Your task to perform on an android device: Check the weather Image 0: 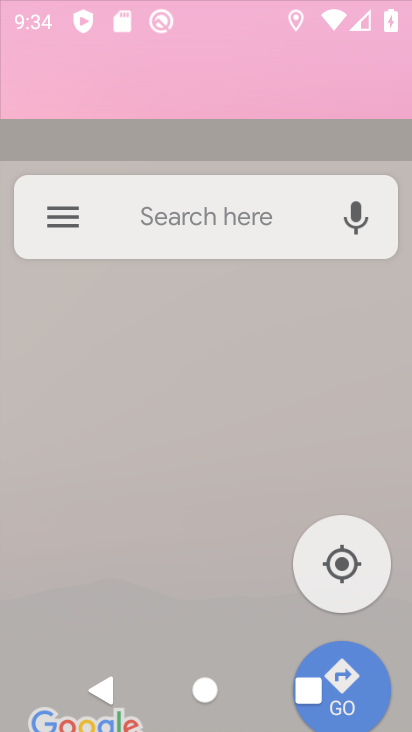
Step 0: click (225, 441)
Your task to perform on an android device: Check the weather Image 1: 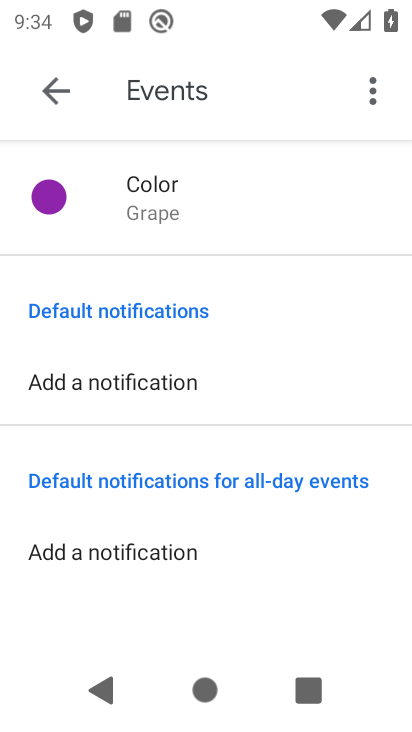
Step 1: press home button
Your task to perform on an android device: Check the weather Image 2: 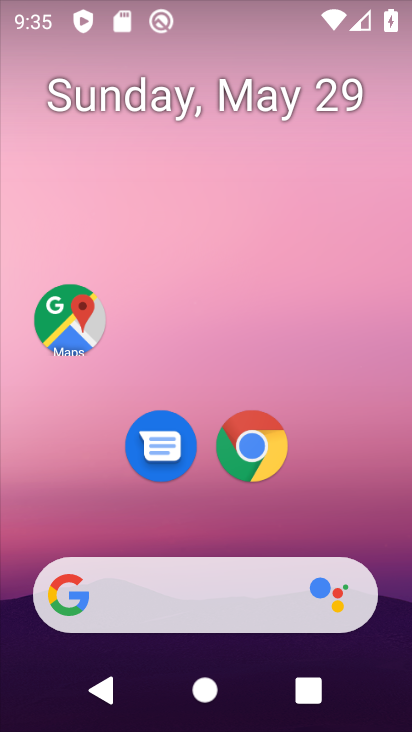
Step 2: drag from (240, 7) to (254, 439)
Your task to perform on an android device: Check the weather Image 3: 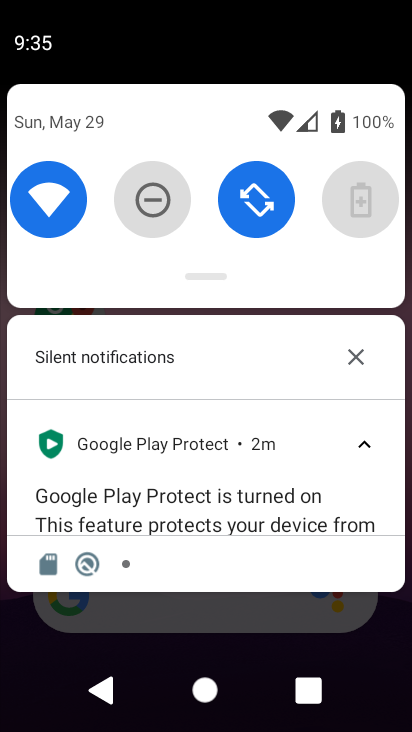
Step 3: drag from (257, 234) to (276, 628)
Your task to perform on an android device: Check the weather Image 4: 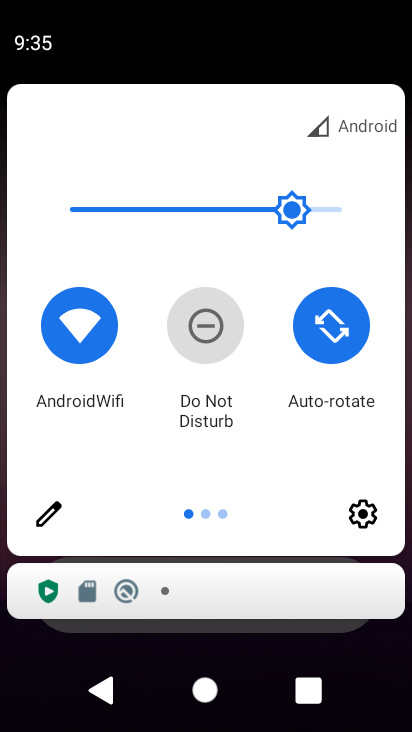
Step 4: press home button
Your task to perform on an android device: Check the weather Image 5: 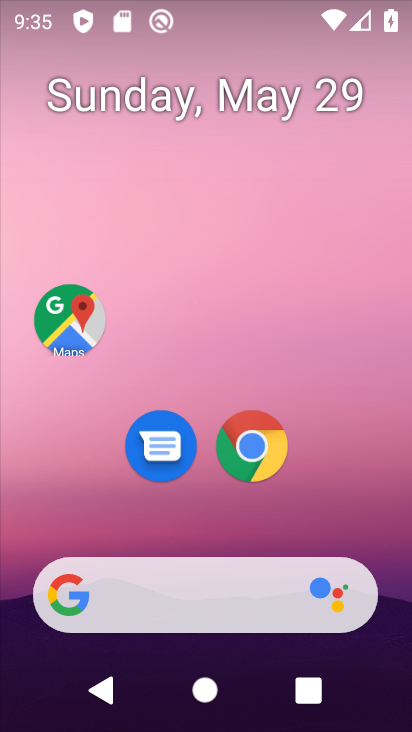
Step 5: drag from (184, 523) to (241, 52)
Your task to perform on an android device: Check the weather Image 6: 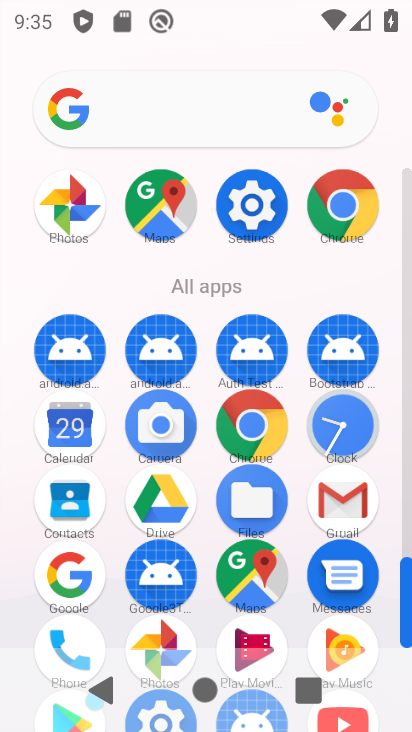
Step 6: click (79, 572)
Your task to perform on an android device: Check the weather Image 7: 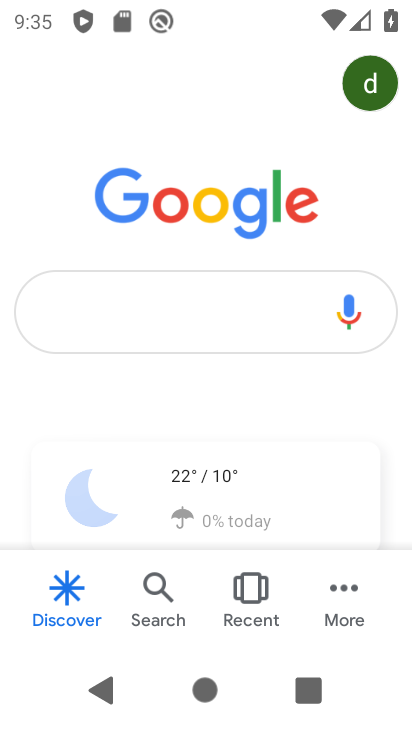
Step 7: click (184, 487)
Your task to perform on an android device: Check the weather Image 8: 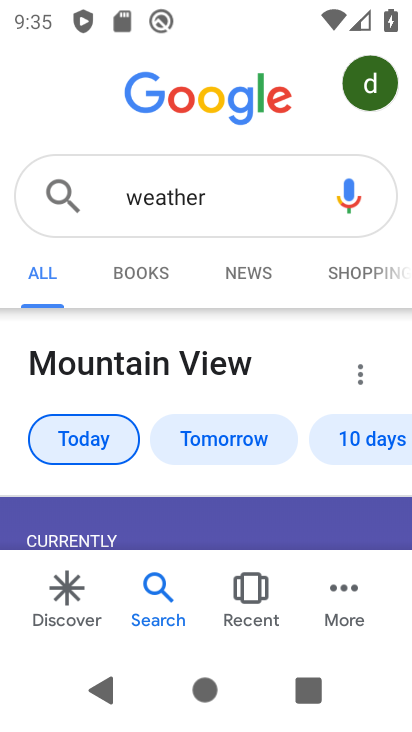
Step 8: task complete